Your task to perform on an android device: create a new album in the google photos Image 0: 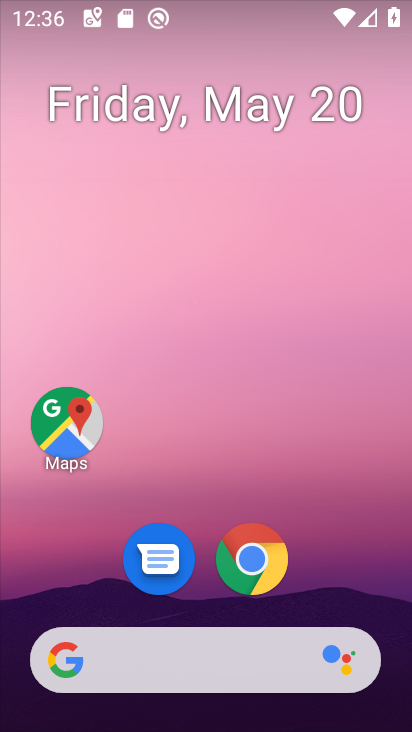
Step 0: drag from (350, 571) to (328, 312)
Your task to perform on an android device: create a new album in the google photos Image 1: 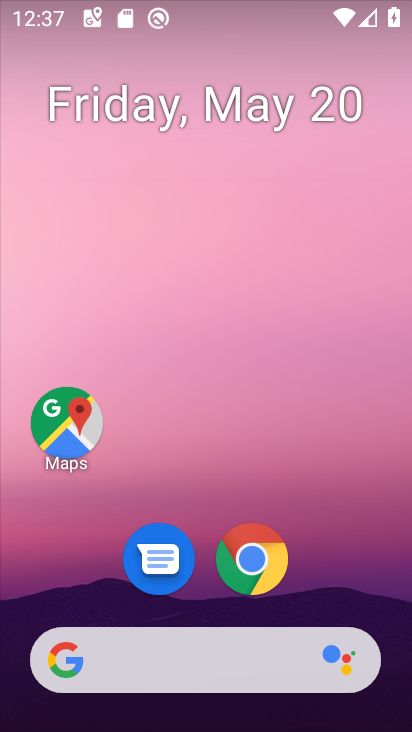
Step 1: drag from (368, 626) to (232, 85)
Your task to perform on an android device: create a new album in the google photos Image 2: 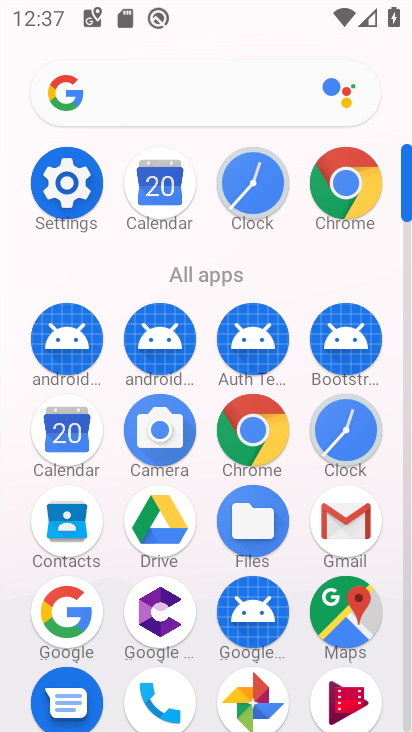
Step 2: click (264, 677)
Your task to perform on an android device: create a new album in the google photos Image 3: 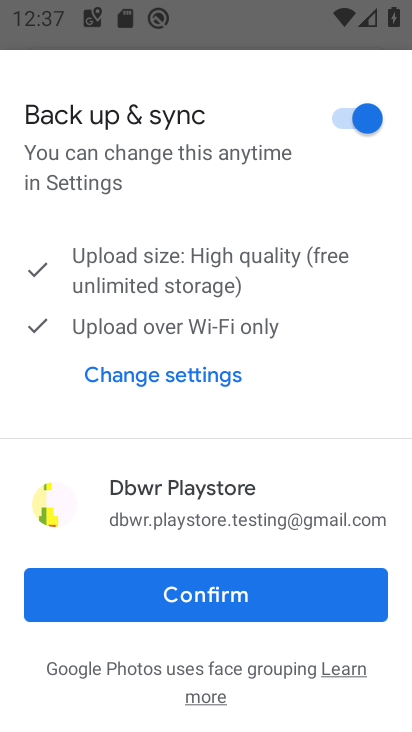
Step 3: click (246, 590)
Your task to perform on an android device: create a new album in the google photos Image 4: 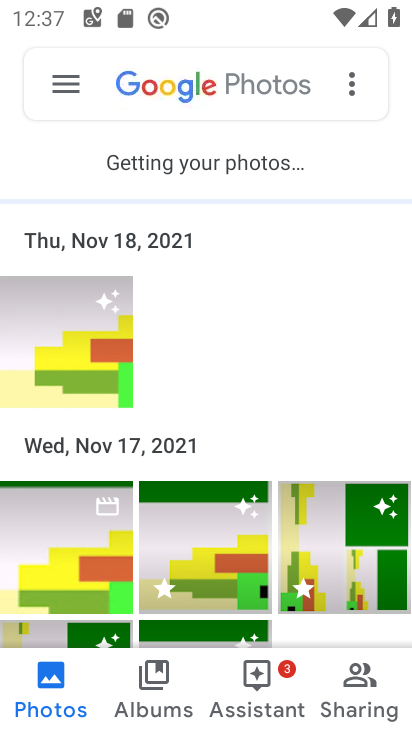
Step 4: click (297, 673)
Your task to perform on an android device: create a new album in the google photos Image 5: 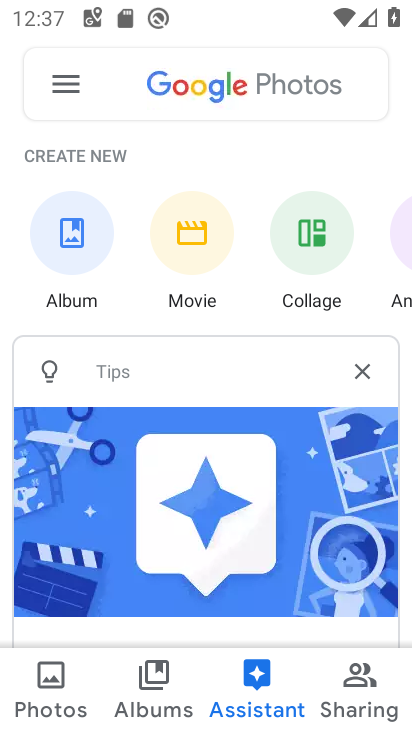
Step 5: click (71, 227)
Your task to perform on an android device: create a new album in the google photos Image 6: 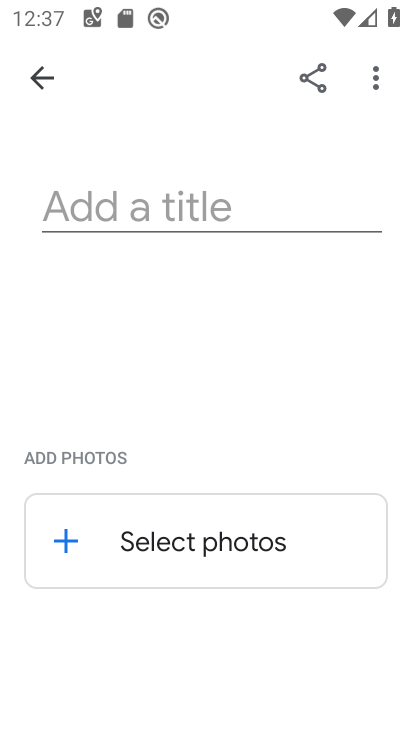
Step 6: click (204, 200)
Your task to perform on an android device: create a new album in the google photos Image 7: 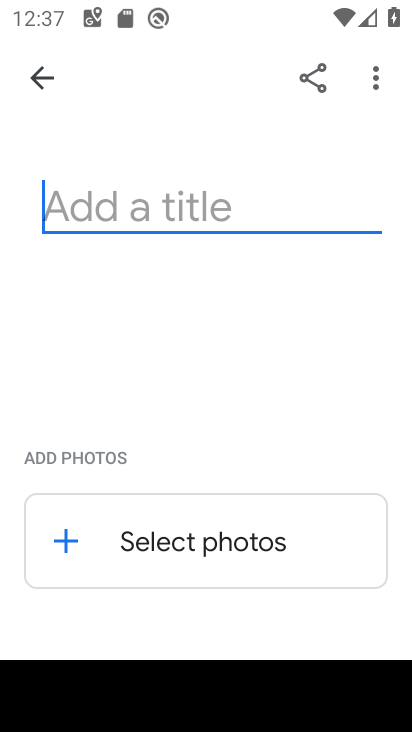
Step 7: type "nsklnsl"
Your task to perform on an android device: create a new album in the google photos Image 8: 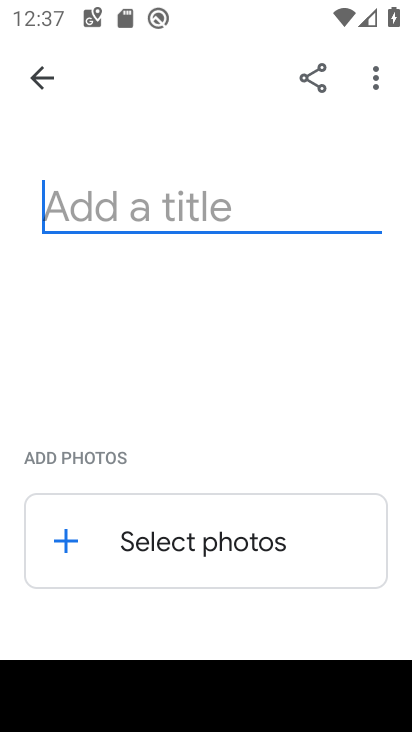
Step 8: click (203, 495)
Your task to perform on an android device: create a new album in the google photos Image 9: 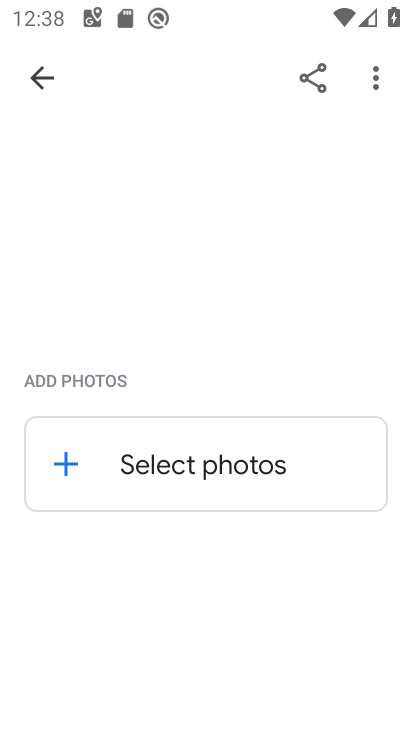
Step 9: click (203, 495)
Your task to perform on an android device: create a new album in the google photos Image 10: 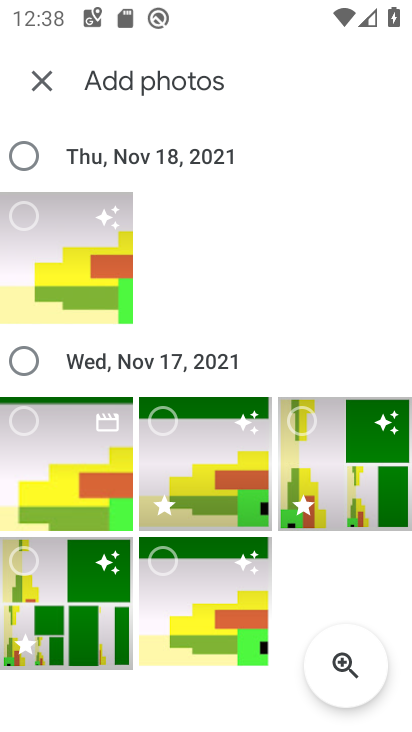
Step 10: click (203, 495)
Your task to perform on an android device: create a new album in the google photos Image 11: 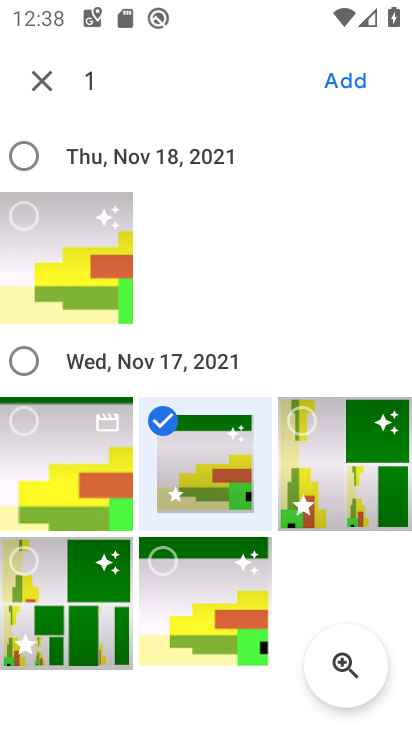
Step 11: click (354, 81)
Your task to perform on an android device: create a new album in the google photos Image 12: 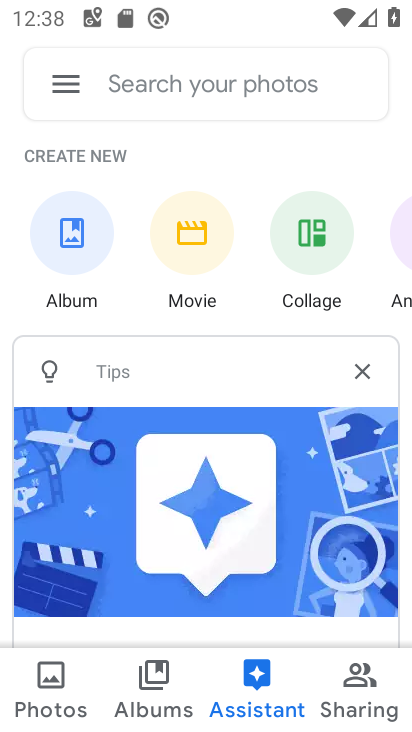
Step 12: task complete